Your task to perform on an android device: Open notification settings Image 0: 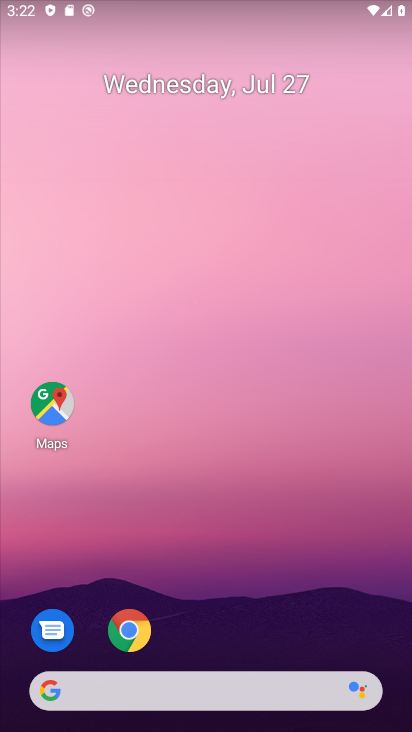
Step 0: press home button
Your task to perform on an android device: Open notification settings Image 1: 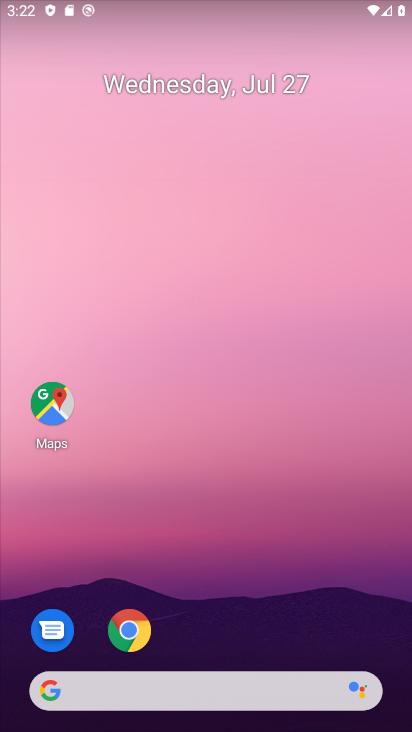
Step 1: drag from (207, 646) to (285, 77)
Your task to perform on an android device: Open notification settings Image 2: 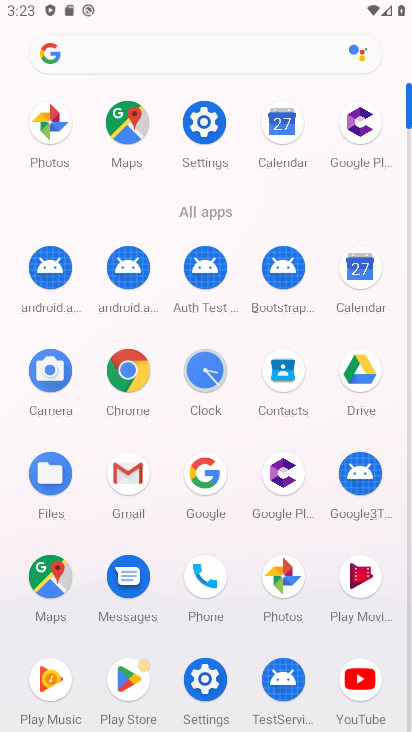
Step 2: click (203, 110)
Your task to perform on an android device: Open notification settings Image 3: 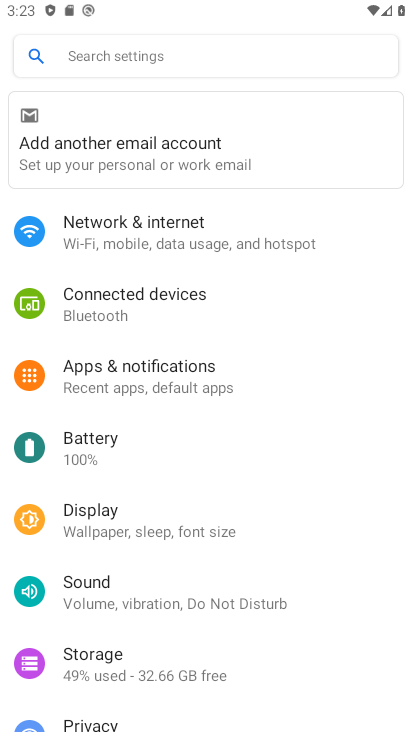
Step 3: click (174, 379)
Your task to perform on an android device: Open notification settings Image 4: 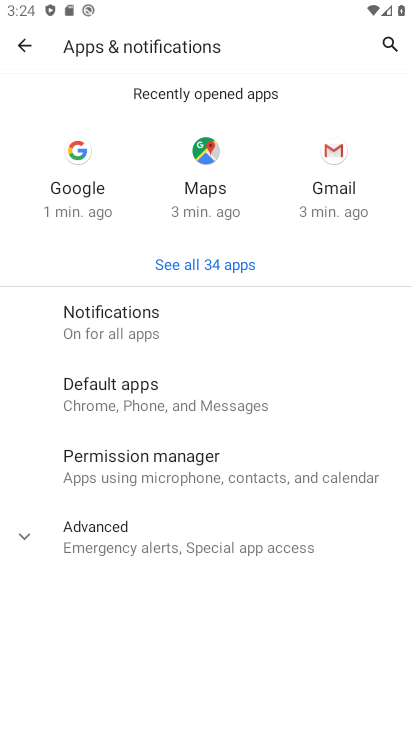
Step 4: click (180, 321)
Your task to perform on an android device: Open notification settings Image 5: 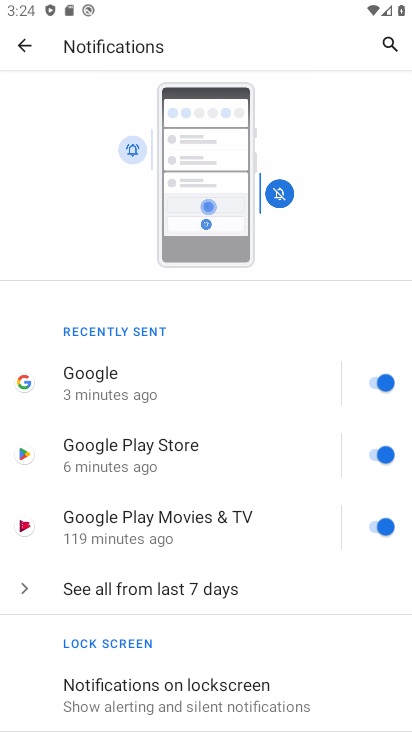
Step 5: drag from (223, 654) to (301, 207)
Your task to perform on an android device: Open notification settings Image 6: 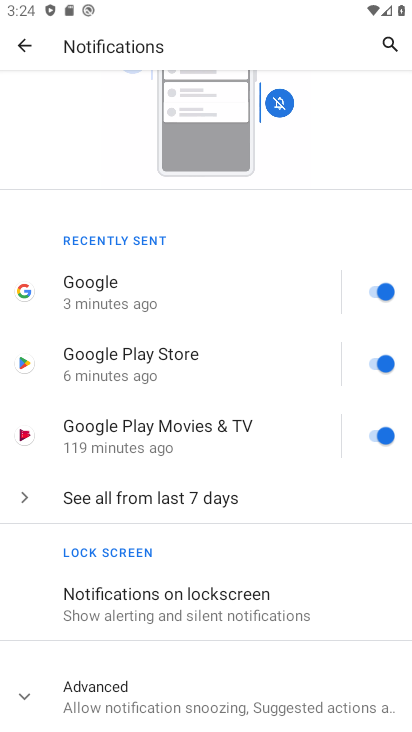
Step 6: click (23, 695)
Your task to perform on an android device: Open notification settings Image 7: 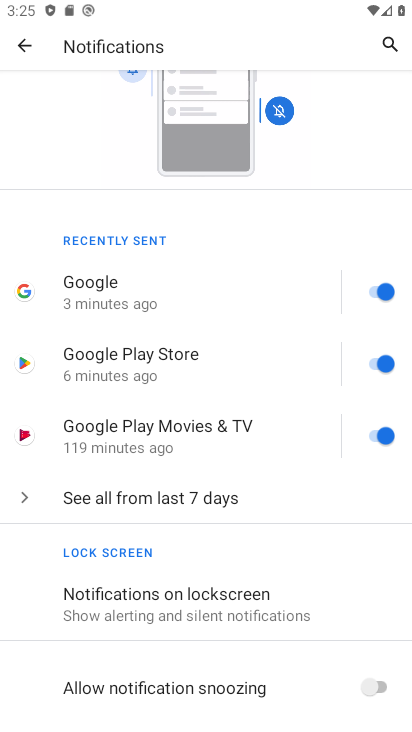
Step 7: task complete